Your task to perform on an android device: add a label to a message in the gmail app Image 0: 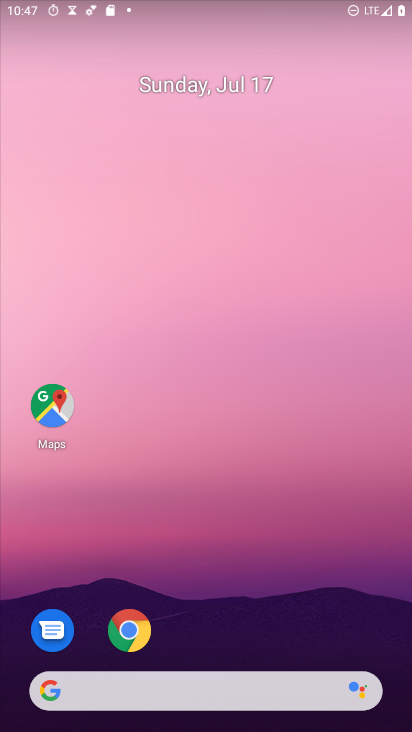
Step 0: drag from (261, 690) to (262, 51)
Your task to perform on an android device: add a label to a message in the gmail app Image 1: 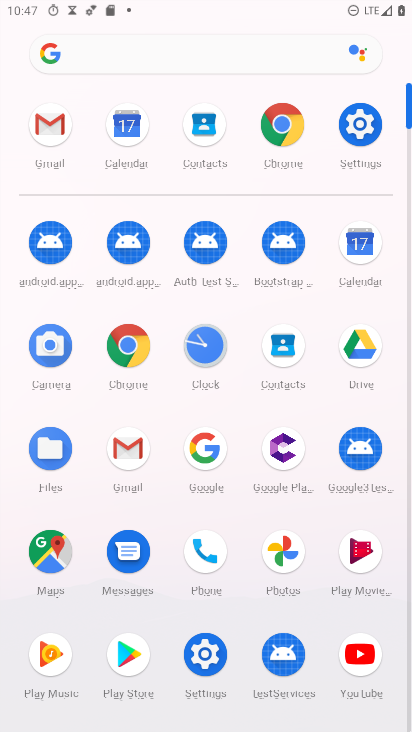
Step 1: click (125, 437)
Your task to perform on an android device: add a label to a message in the gmail app Image 2: 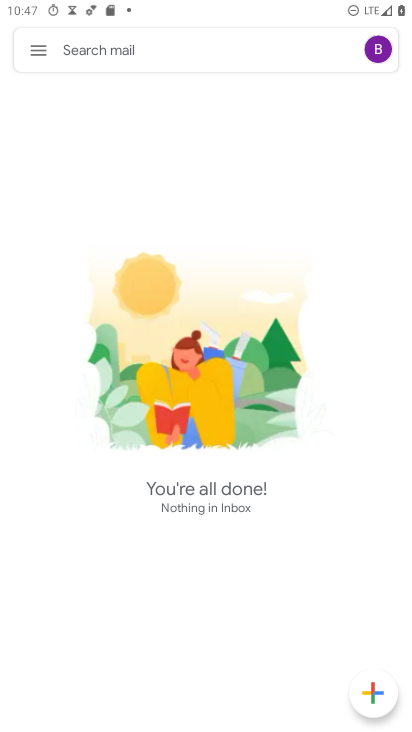
Step 2: click (38, 41)
Your task to perform on an android device: add a label to a message in the gmail app Image 3: 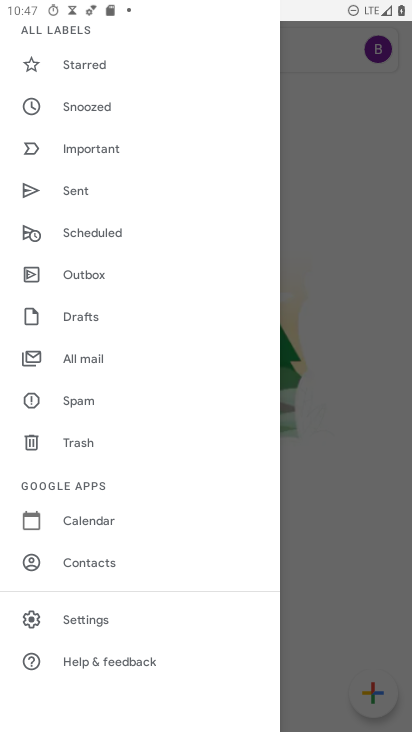
Step 3: drag from (122, 105) to (114, 523)
Your task to perform on an android device: add a label to a message in the gmail app Image 4: 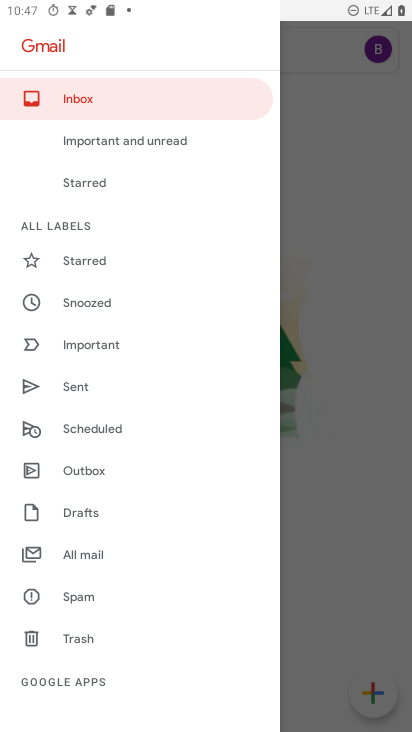
Step 4: click (85, 264)
Your task to perform on an android device: add a label to a message in the gmail app Image 5: 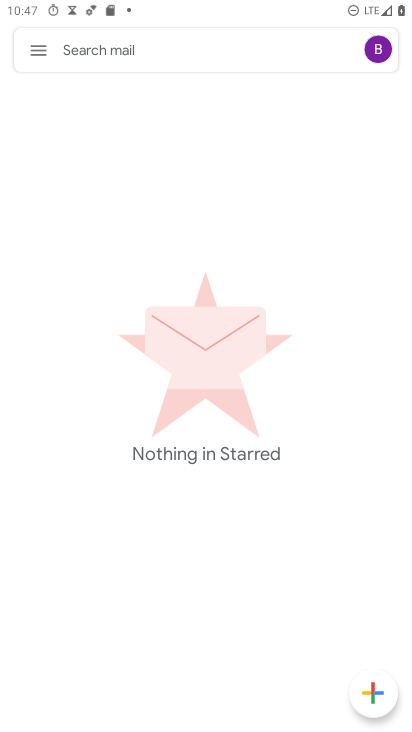
Step 5: task complete